Your task to perform on an android device: find snoozed emails in the gmail app Image 0: 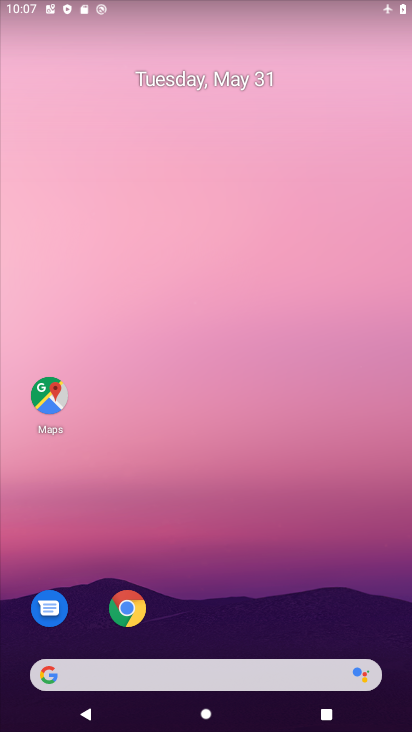
Step 0: drag from (196, 654) to (24, 11)
Your task to perform on an android device: find snoozed emails in the gmail app Image 1: 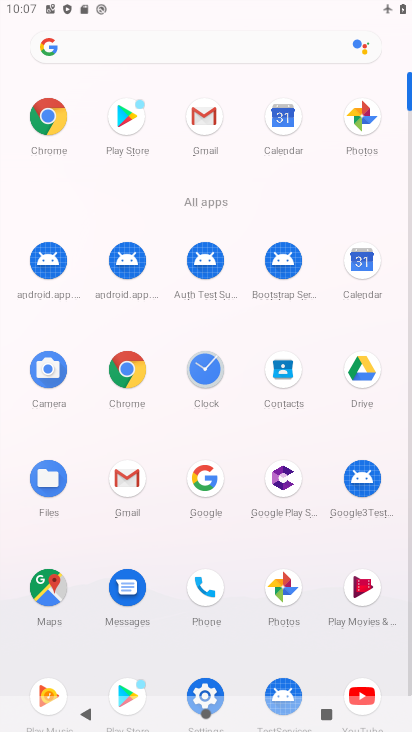
Step 1: click (125, 473)
Your task to perform on an android device: find snoozed emails in the gmail app Image 2: 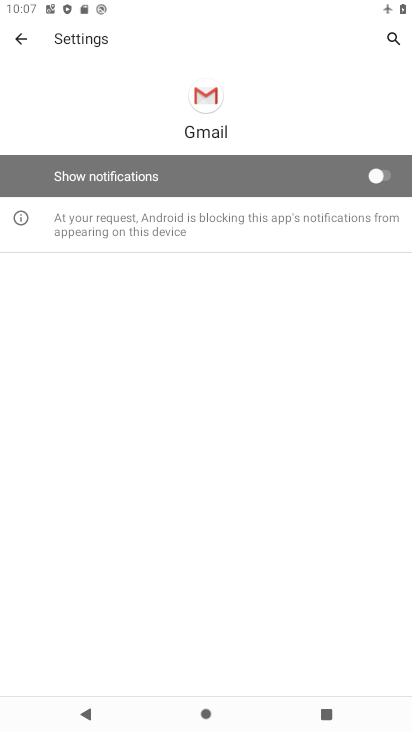
Step 2: click (22, 53)
Your task to perform on an android device: find snoozed emails in the gmail app Image 3: 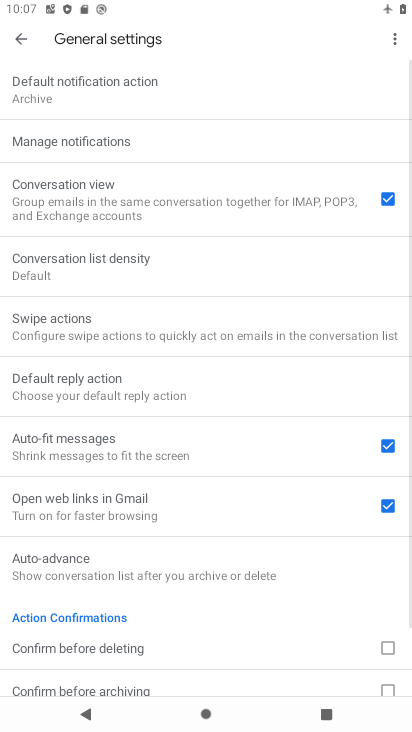
Step 3: click (29, 37)
Your task to perform on an android device: find snoozed emails in the gmail app Image 4: 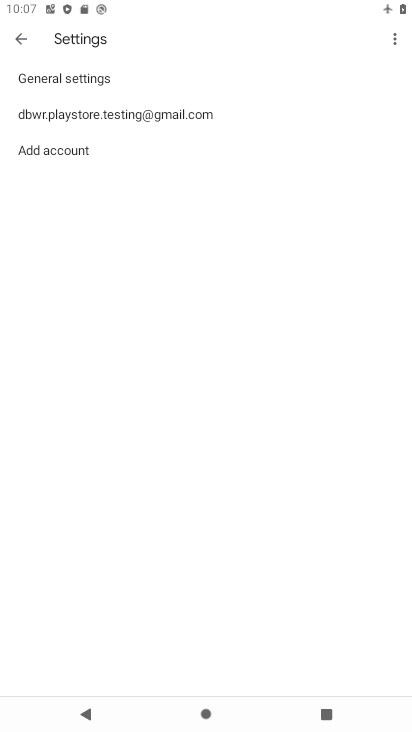
Step 4: click (15, 33)
Your task to perform on an android device: find snoozed emails in the gmail app Image 5: 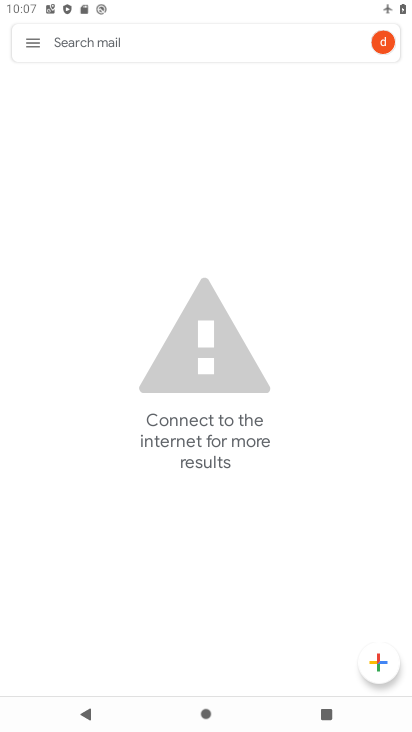
Step 5: click (26, 36)
Your task to perform on an android device: find snoozed emails in the gmail app Image 6: 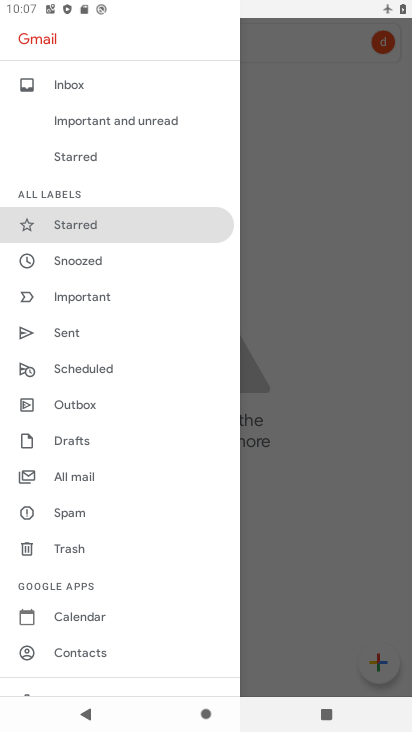
Step 6: click (96, 266)
Your task to perform on an android device: find snoozed emails in the gmail app Image 7: 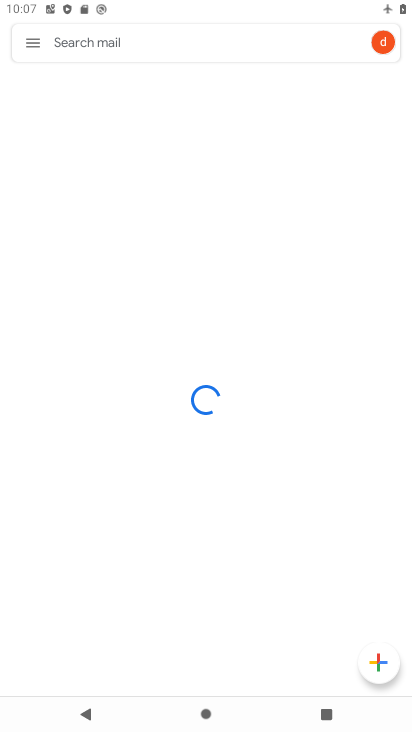
Step 7: task complete